Your task to perform on an android device: open chrome and create a bookmark for the current page Image 0: 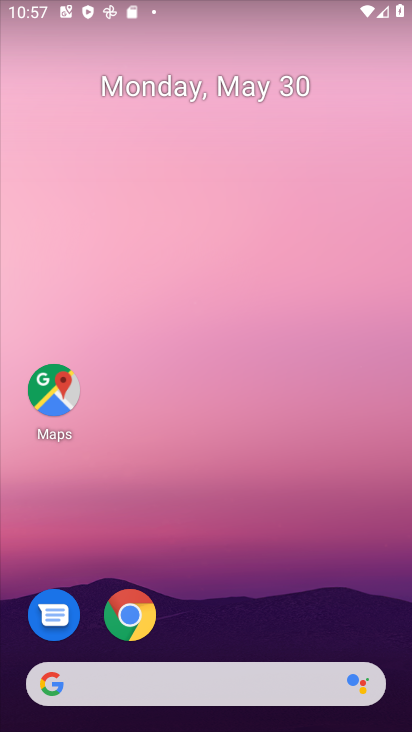
Step 0: click (116, 618)
Your task to perform on an android device: open chrome and create a bookmark for the current page Image 1: 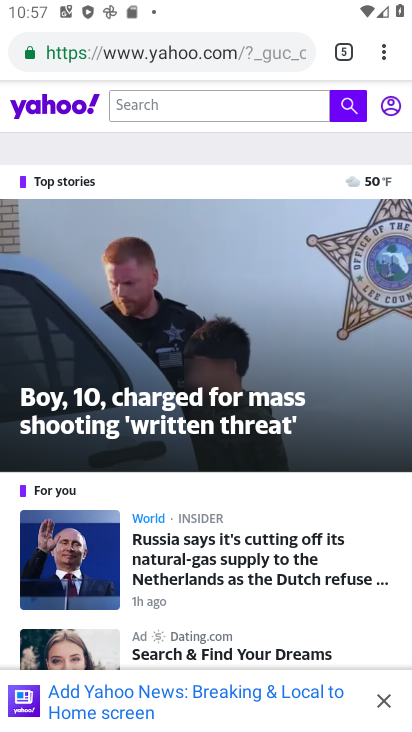
Step 1: click (382, 56)
Your task to perform on an android device: open chrome and create a bookmark for the current page Image 2: 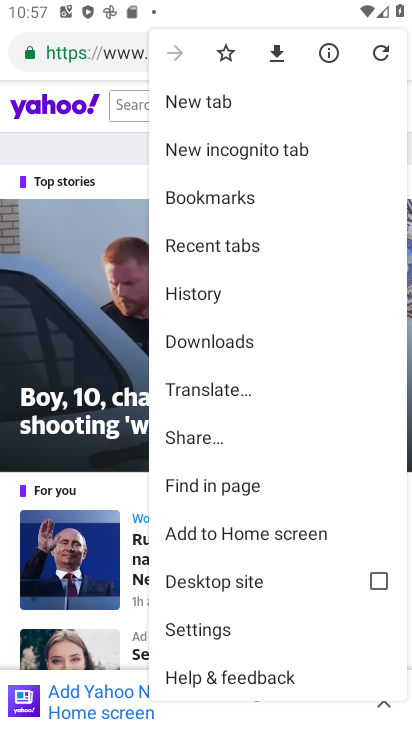
Step 2: click (238, 196)
Your task to perform on an android device: open chrome and create a bookmark for the current page Image 3: 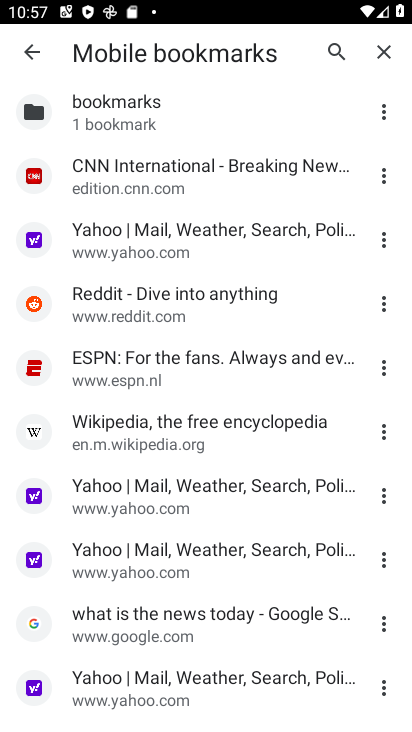
Step 3: click (145, 300)
Your task to perform on an android device: open chrome and create a bookmark for the current page Image 4: 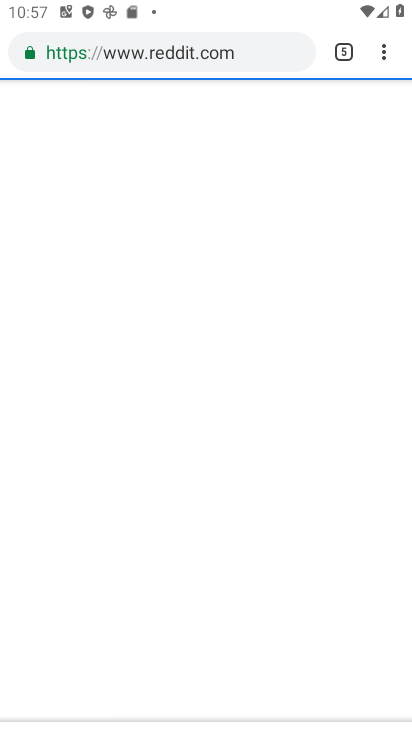
Step 4: task complete